Your task to perform on an android device: Open eBay Image 0: 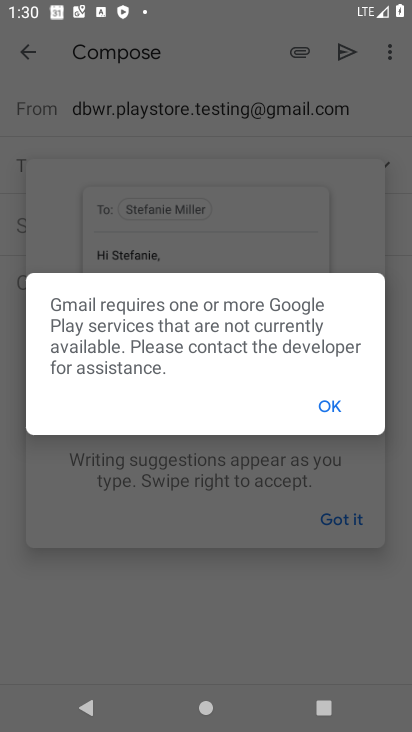
Step 0: press home button
Your task to perform on an android device: Open eBay Image 1: 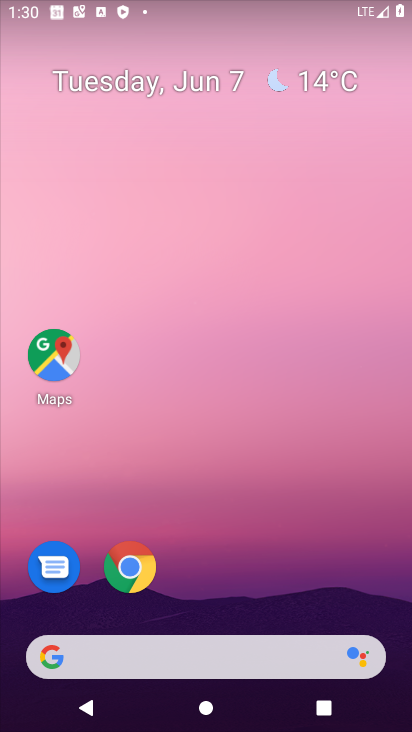
Step 1: drag from (257, 664) to (284, 172)
Your task to perform on an android device: Open eBay Image 2: 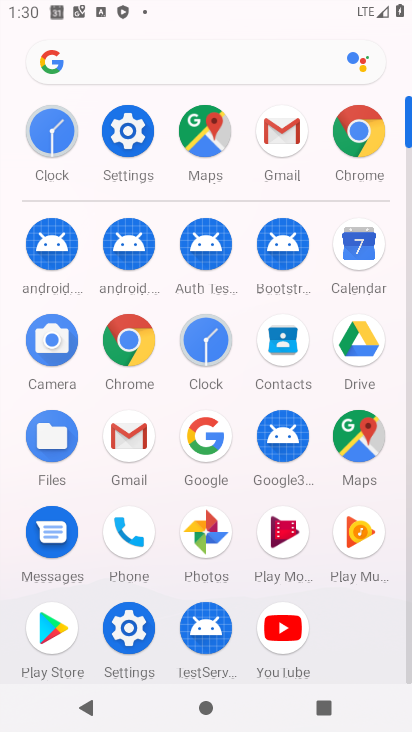
Step 2: click (121, 347)
Your task to perform on an android device: Open eBay Image 3: 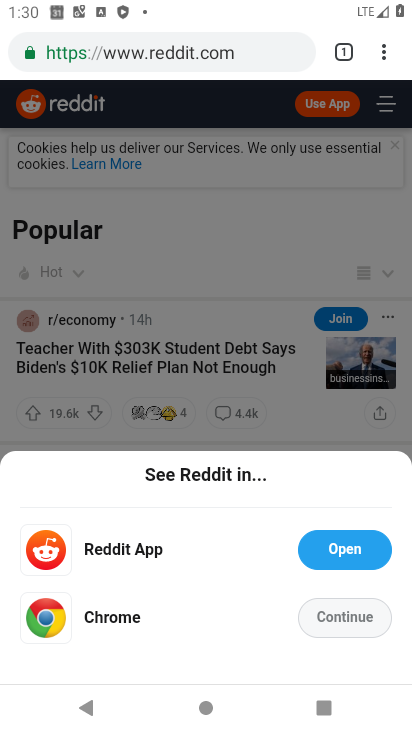
Step 3: click (189, 61)
Your task to perform on an android device: Open eBay Image 4: 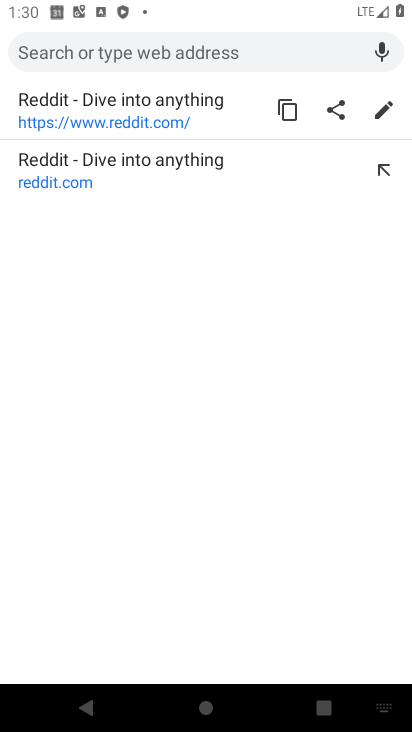
Step 4: type "ebay"
Your task to perform on an android device: Open eBay Image 5: 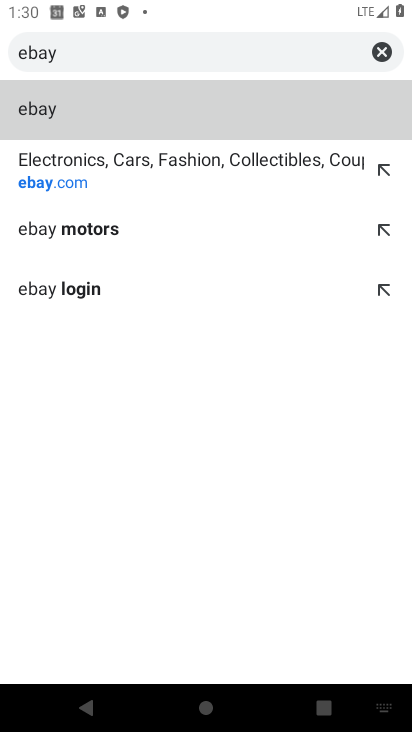
Step 5: click (109, 180)
Your task to perform on an android device: Open eBay Image 6: 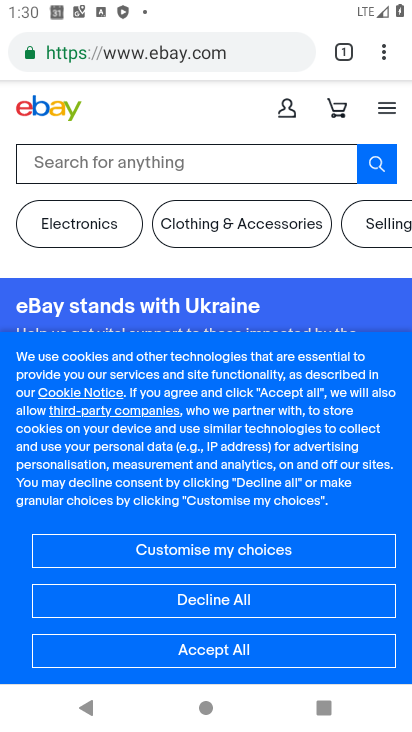
Step 6: task complete